Your task to perform on an android device: turn off picture-in-picture Image 0: 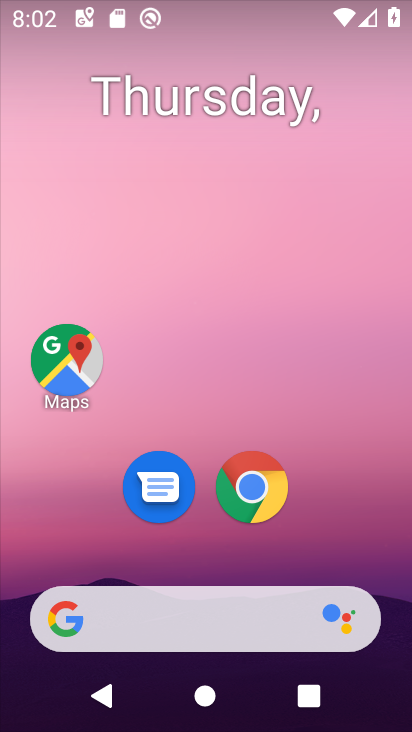
Step 0: drag from (178, 528) to (212, 82)
Your task to perform on an android device: turn off picture-in-picture Image 1: 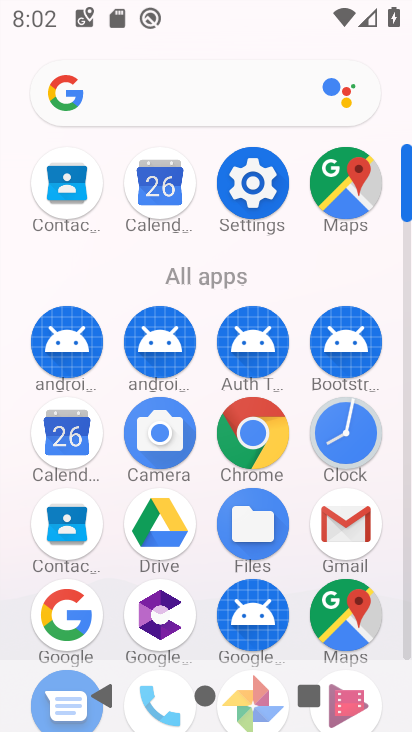
Step 1: click (255, 189)
Your task to perform on an android device: turn off picture-in-picture Image 2: 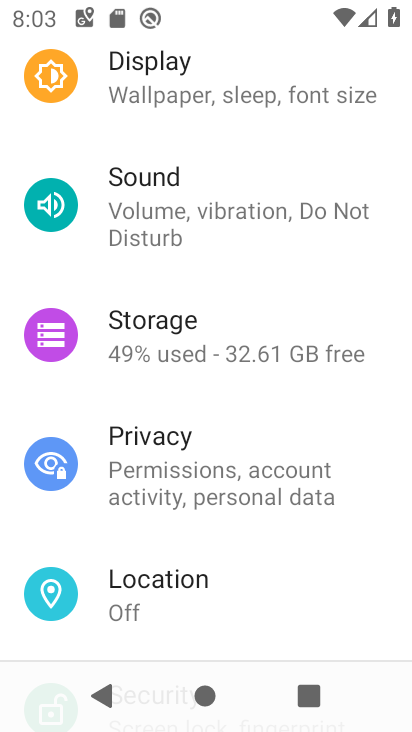
Step 2: drag from (242, 152) to (219, 689)
Your task to perform on an android device: turn off picture-in-picture Image 3: 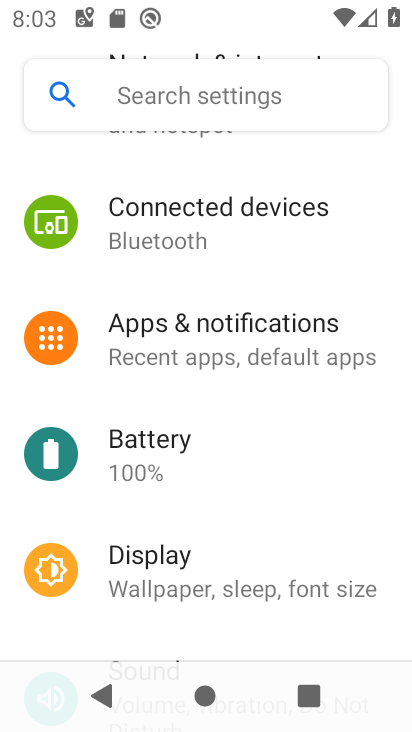
Step 3: drag from (225, 229) to (186, 668)
Your task to perform on an android device: turn off picture-in-picture Image 4: 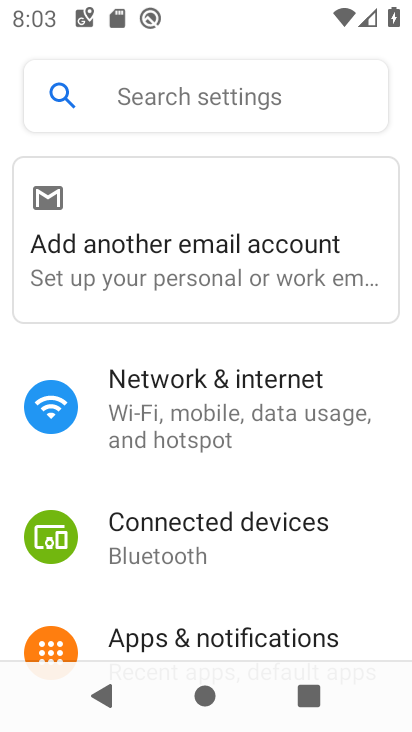
Step 4: drag from (191, 575) to (221, 336)
Your task to perform on an android device: turn off picture-in-picture Image 5: 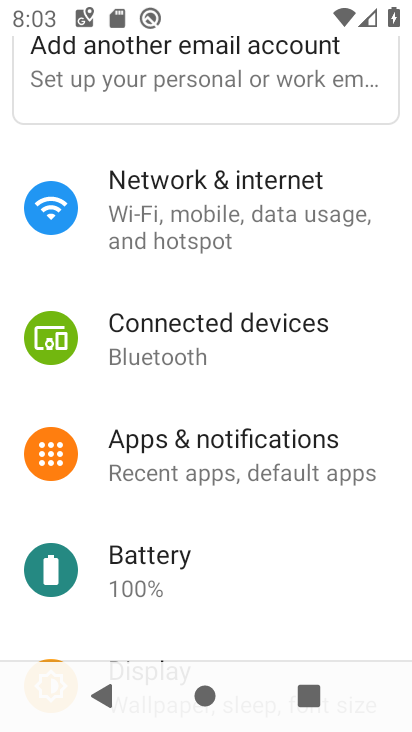
Step 5: click (228, 451)
Your task to perform on an android device: turn off picture-in-picture Image 6: 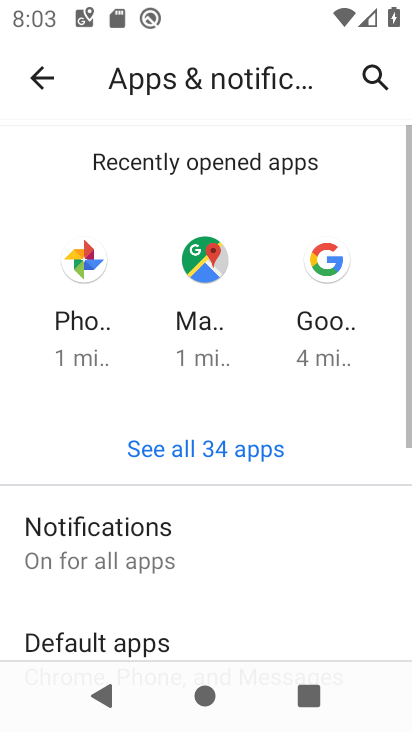
Step 6: drag from (173, 594) to (225, 337)
Your task to perform on an android device: turn off picture-in-picture Image 7: 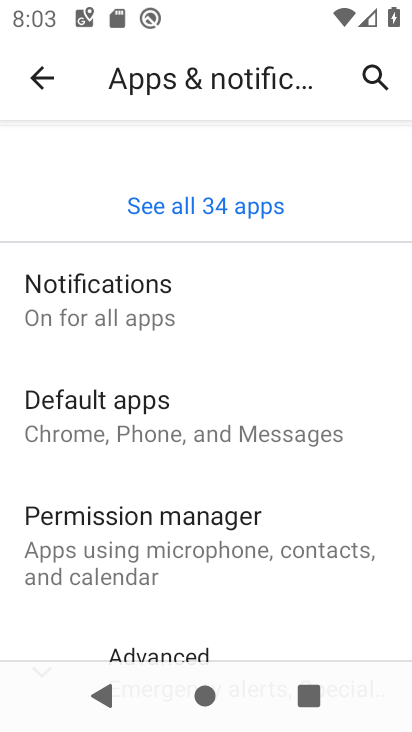
Step 7: drag from (174, 604) to (237, 113)
Your task to perform on an android device: turn off picture-in-picture Image 8: 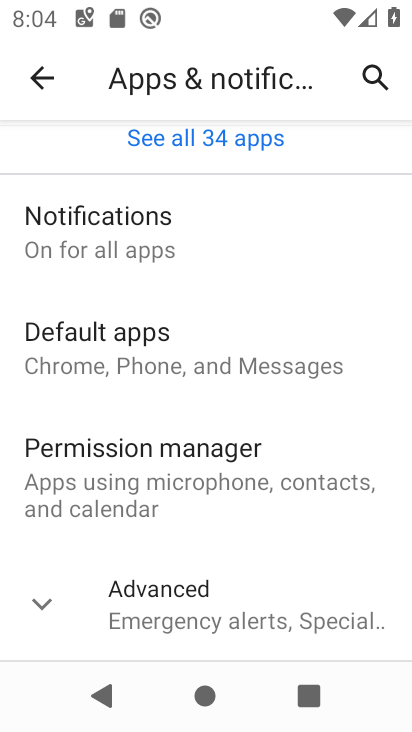
Step 8: drag from (235, 554) to (292, 80)
Your task to perform on an android device: turn off picture-in-picture Image 9: 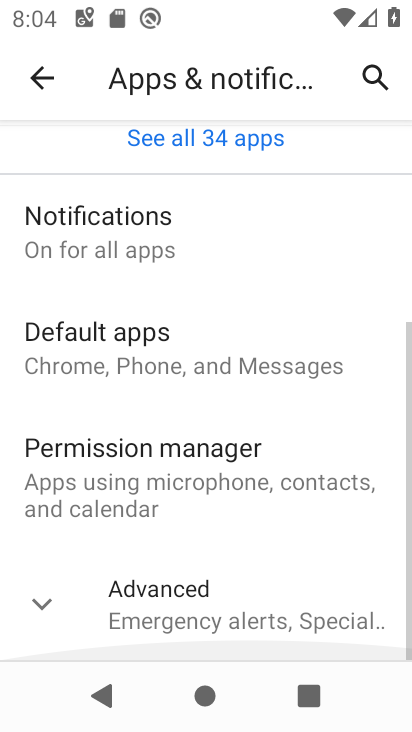
Step 9: drag from (234, 630) to (247, 183)
Your task to perform on an android device: turn off picture-in-picture Image 10: 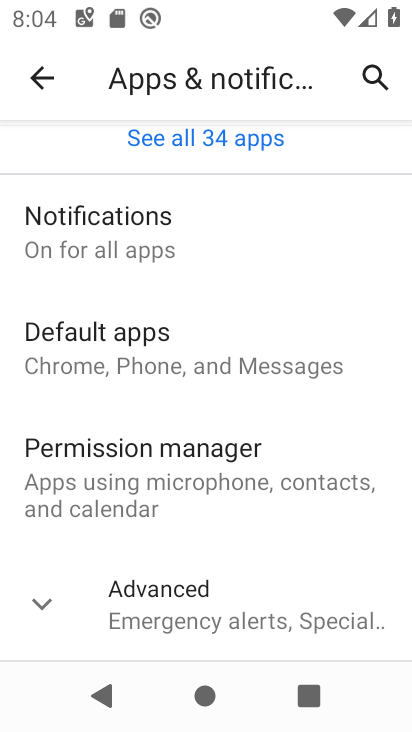
Step 10: click (180, 601)
Your task to perform on an android device: turn off picture-in-picture Image 11: 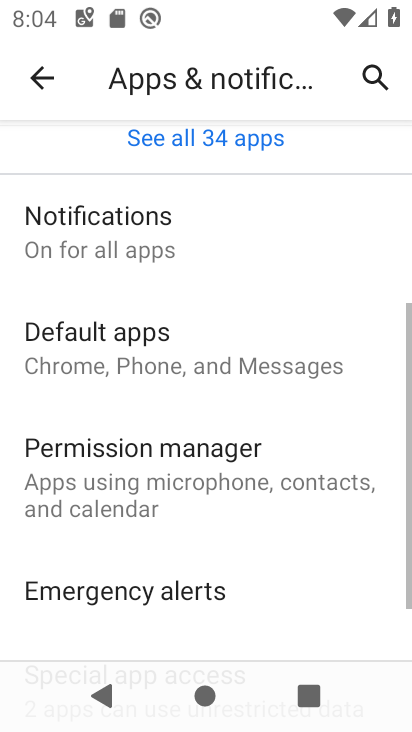
Step 11: drag from (177, 601) to (213, 105)
Your task to perform on an android device: turn off picture-in-picture Image 12: 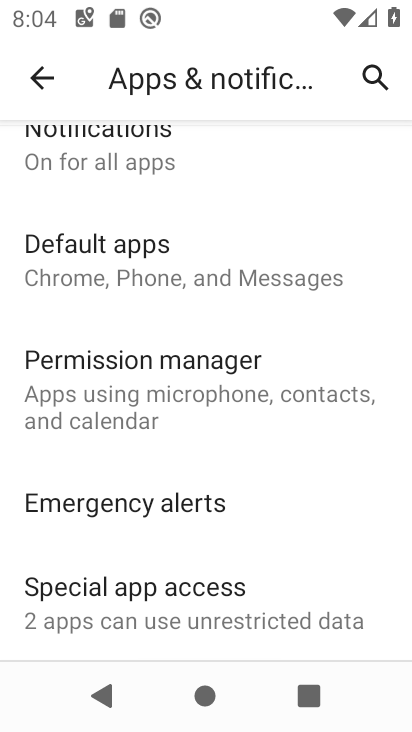
Step 12: click (198, 571)
Your task to perform on an android device: turn off picture-in-picture Image 13: 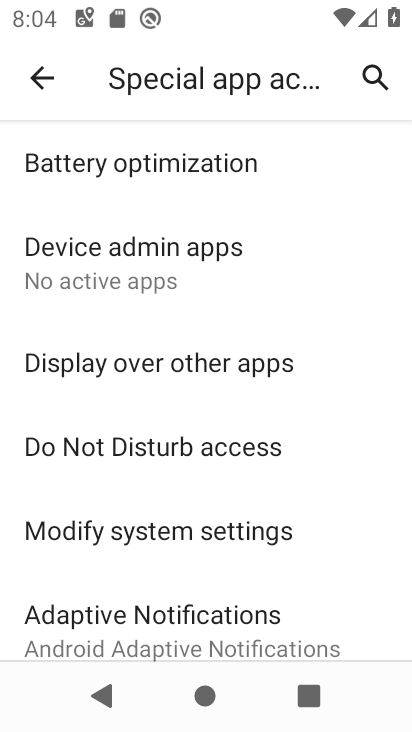
Step 13: drag from (135, 606) to (191, 169)
Your task to perform on an android device: turn off picture-in-picture Image 14: 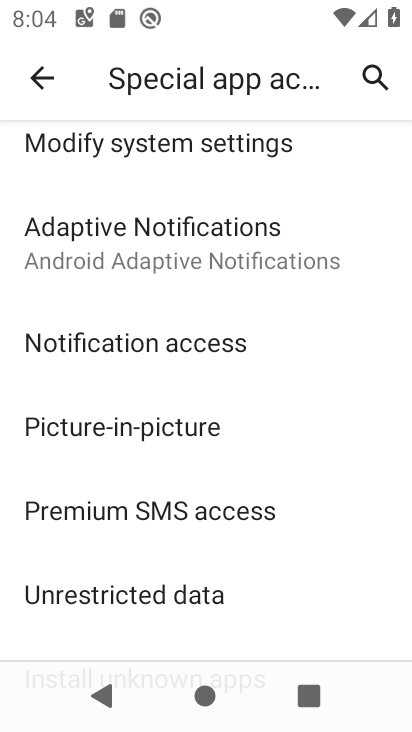
Step 14: click (133, 419)
Your task to perform on an android device: turn off picture-in-picture Image 15: 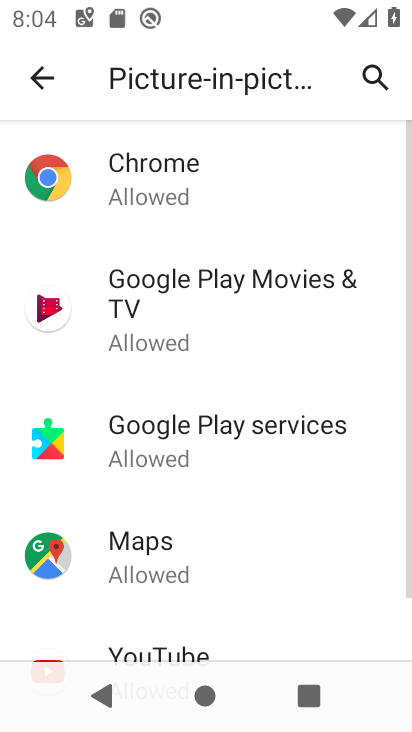
Step 15: click (167, 174)
Your task to perform on an android device: turn off picture-in-picture Image 16: 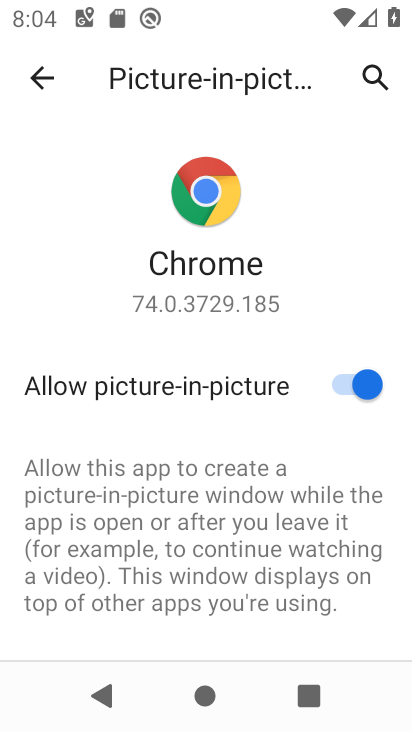
Step 16: click (357, 385)
Your task to perform on an android device: turn off picture-in-picture Image 17: 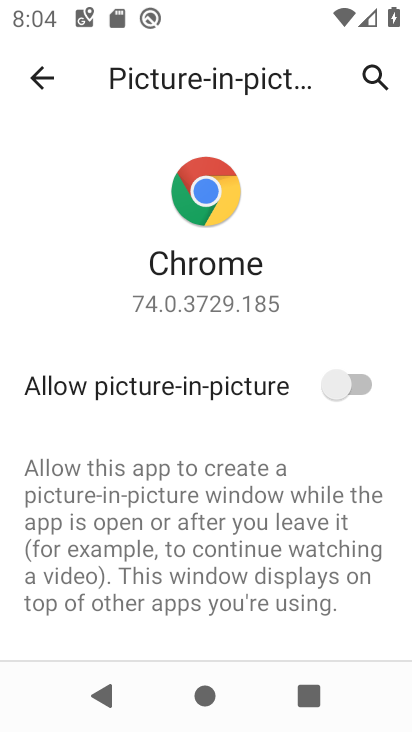
Step 17: task complete